Your task to perform on an android device: Show the shopping cart on amazon.com. Add logitech g pro to the cart on amazon.com, then select checkout. Image 0: 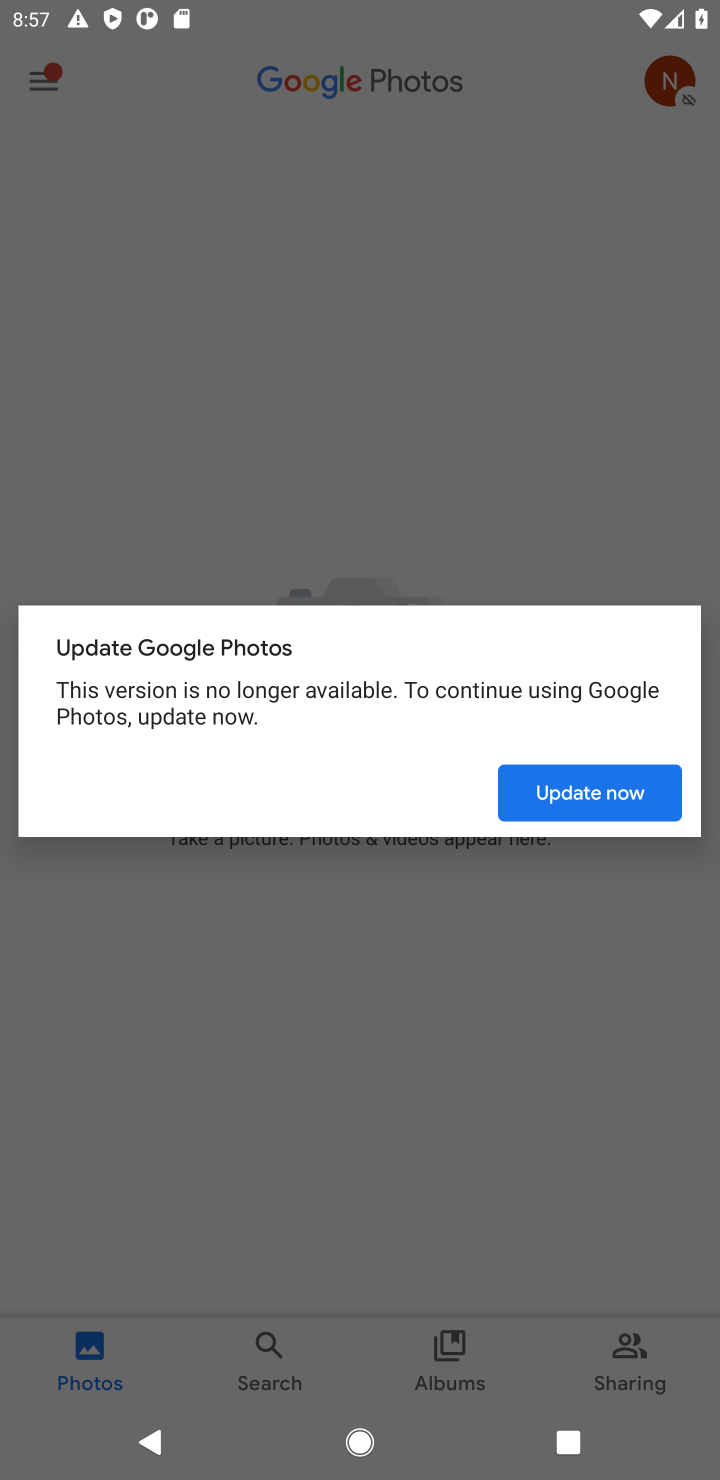
Step 0: press home button
Your task to perform on an android device: Show the shopping cart on amazon.com. Add logitech g pro to the cart on amazon.com, then select checkout. Image 1: 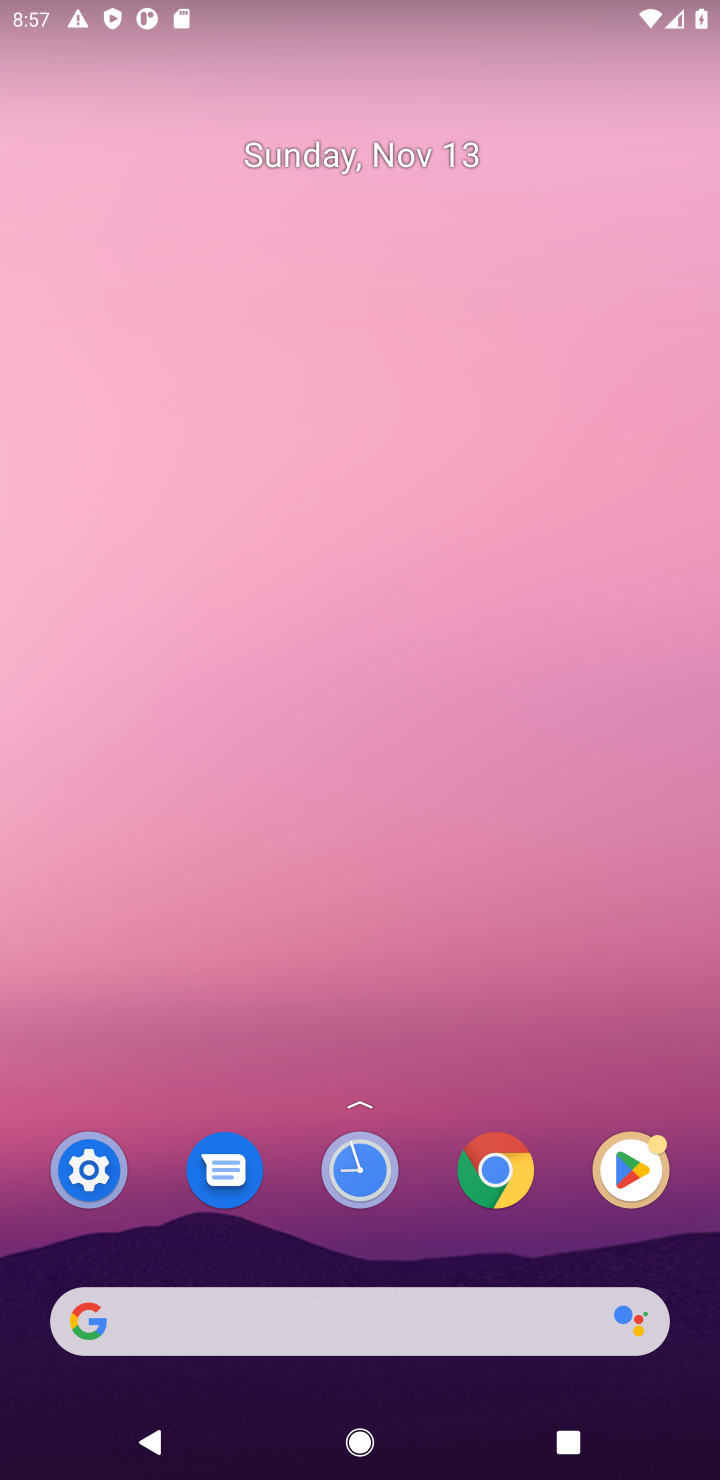
Step 1: click (391, 1360)
Your task to perform on an android device: Show the shopping cart on amazon.com. Add logitech g pro to the cart on amazon.com, then select checkout. Image 2: 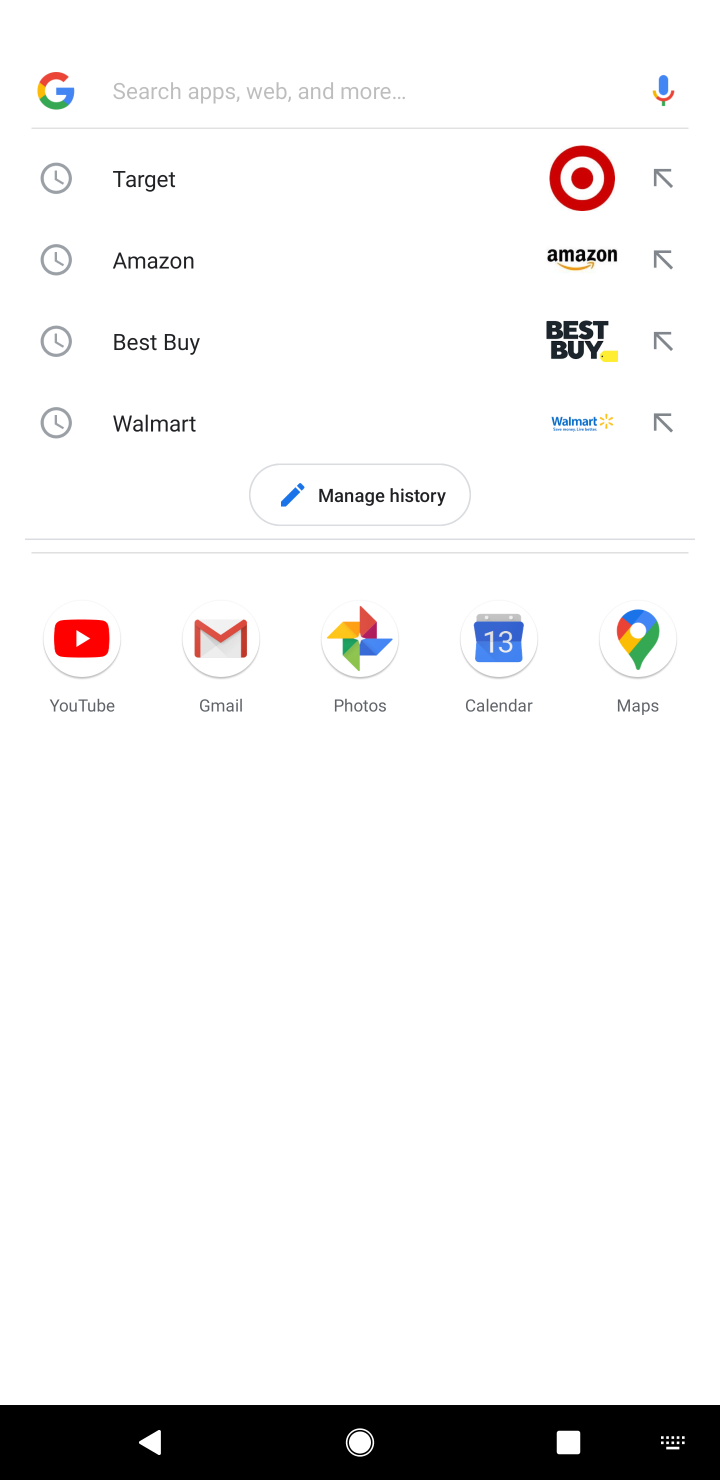
Step 2: type "amazon.com"
Your task to perform on an android device: Show the shopping cart on amazon.com. Add logitech g pro to the cart on amazon.com, then select checkout. Image 3: 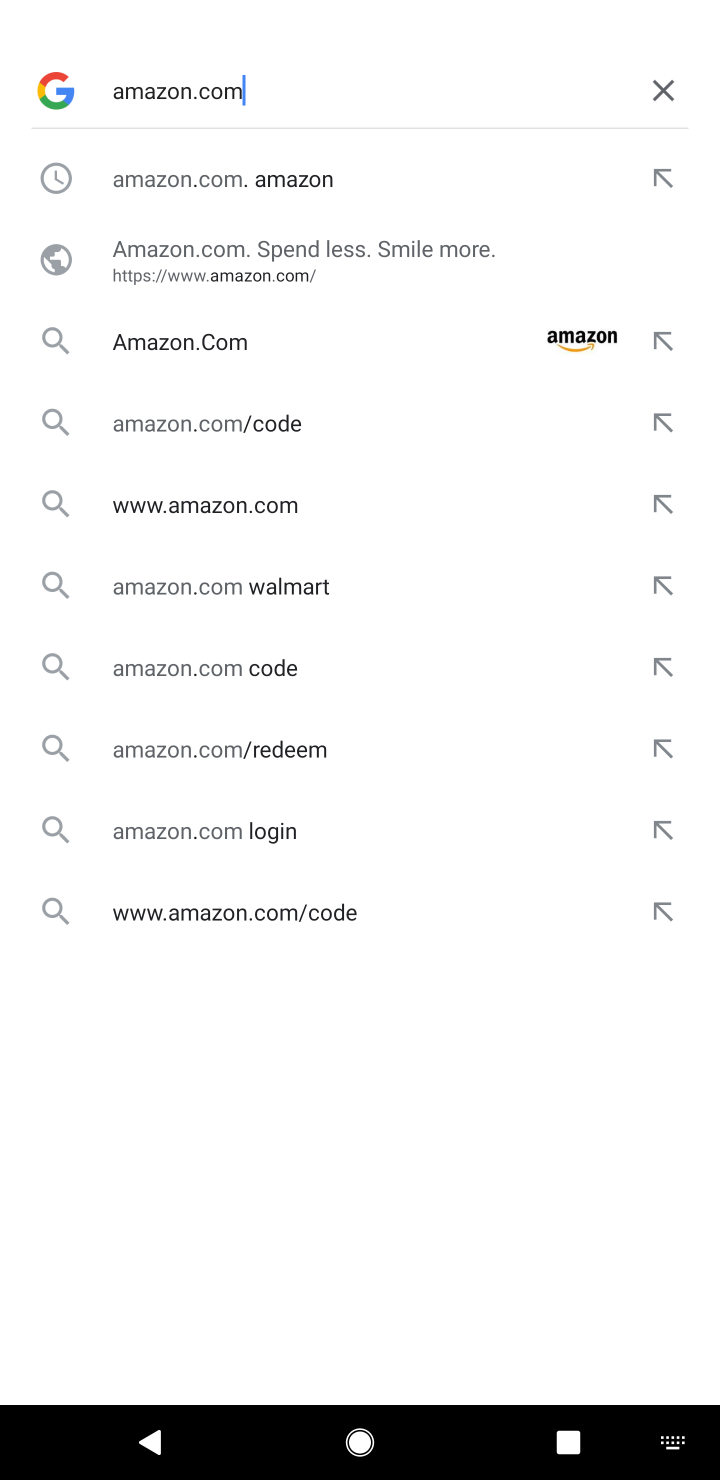
Step 3: click (247, 342)
Your task to perform on an android device: Show the shopping cart on amazon.com. Add logitech g pro to the cart on amazon.com, then select checkout. Image 4: 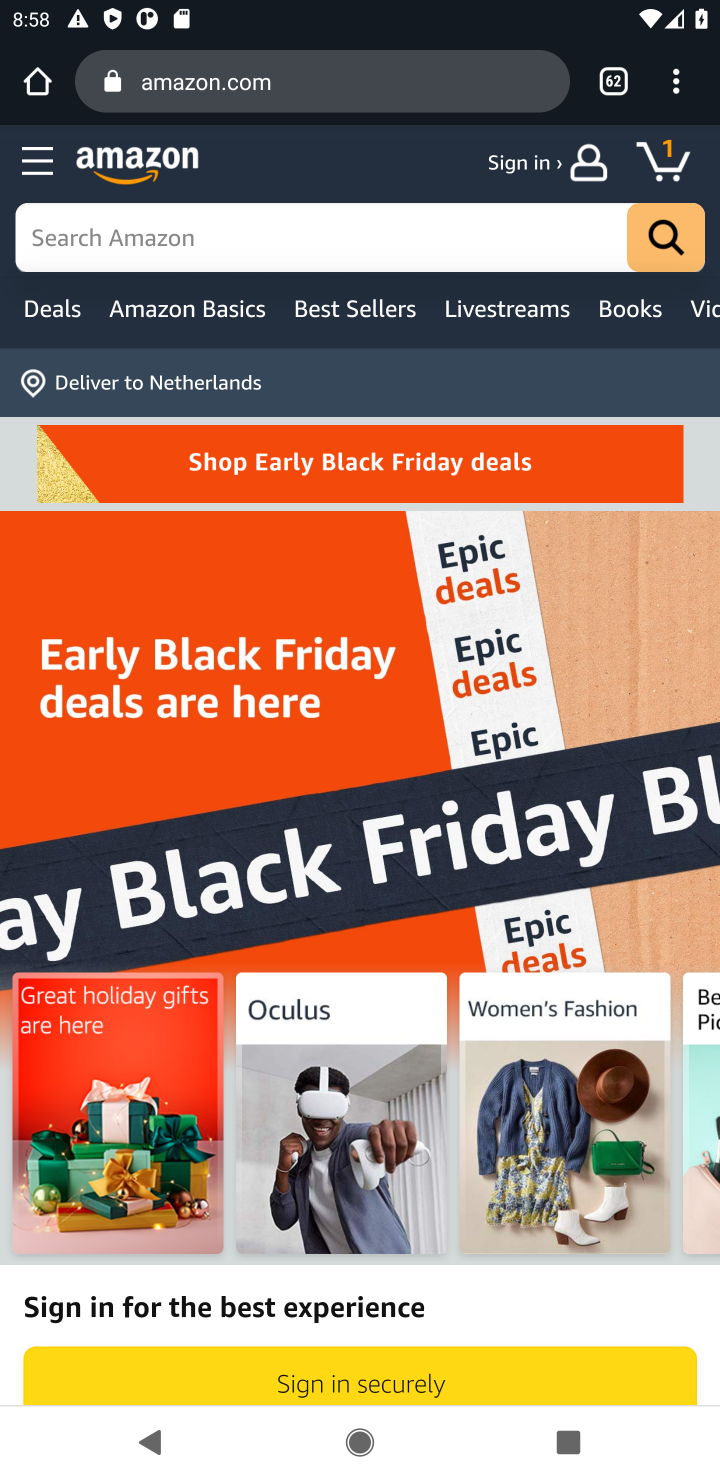
Step 4: click (416, 209)
Your task to perform on an android device: Show the shopping cart on amazon.com. Add logitech g pro to the cart on amazon.com, then select checkout. Image 5: 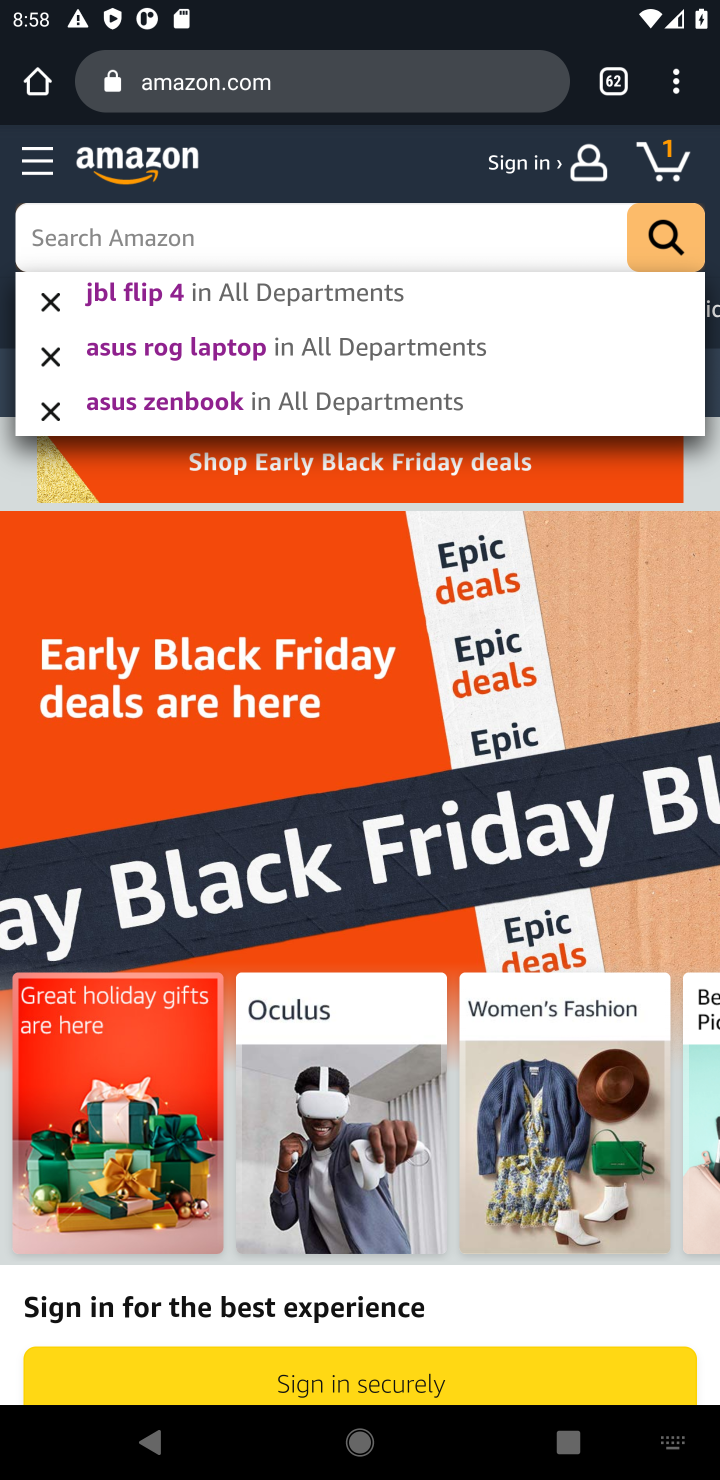
Step 5: type "logitech g pro"
Your task to perform on an android device: Show the shopping cart on amazon.com. Add logitech g pro to the cart on amazon.com, then select checkout. Image 6: 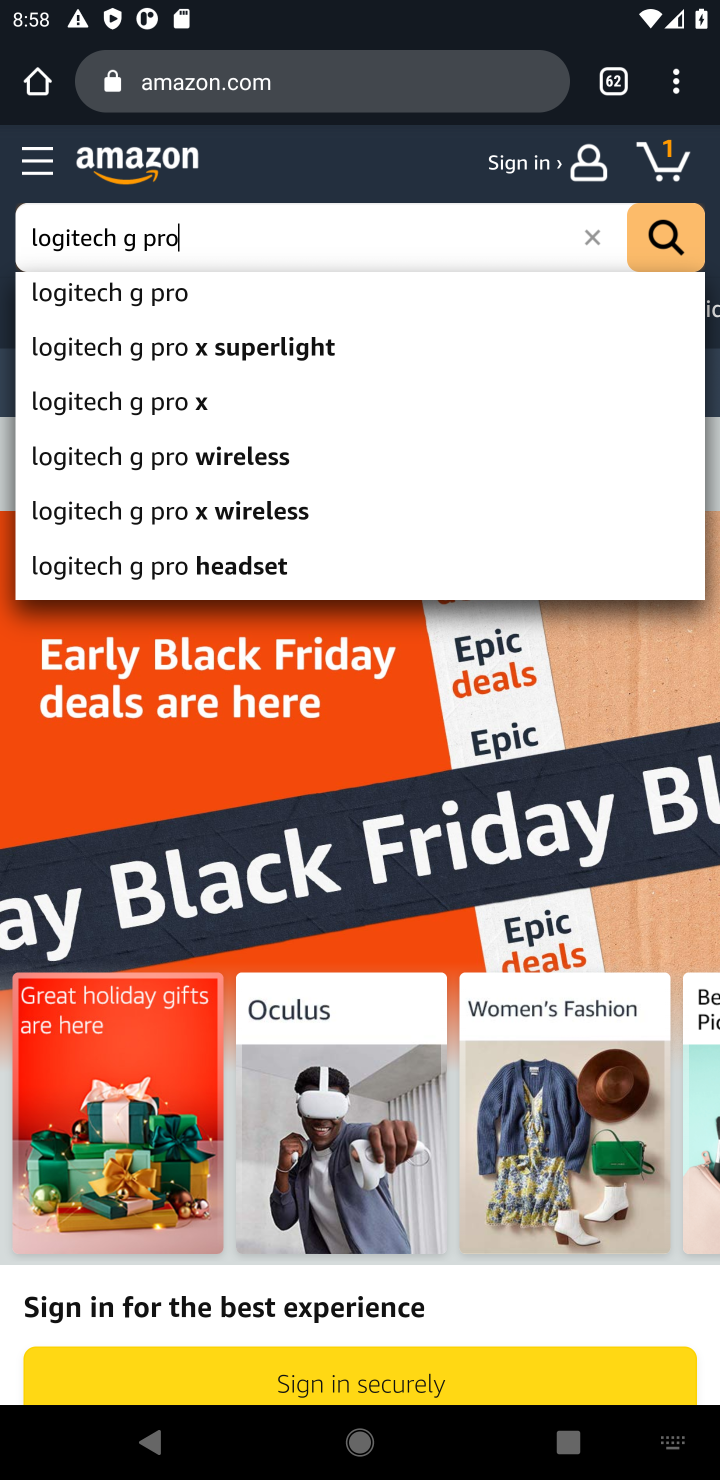
Step 6: click (192, 312)
Your task to perform on an android device: Show the shopping cart on amazon.com. Add logitech g pro to the cart on amazon.com, then select checkout. Image 7: 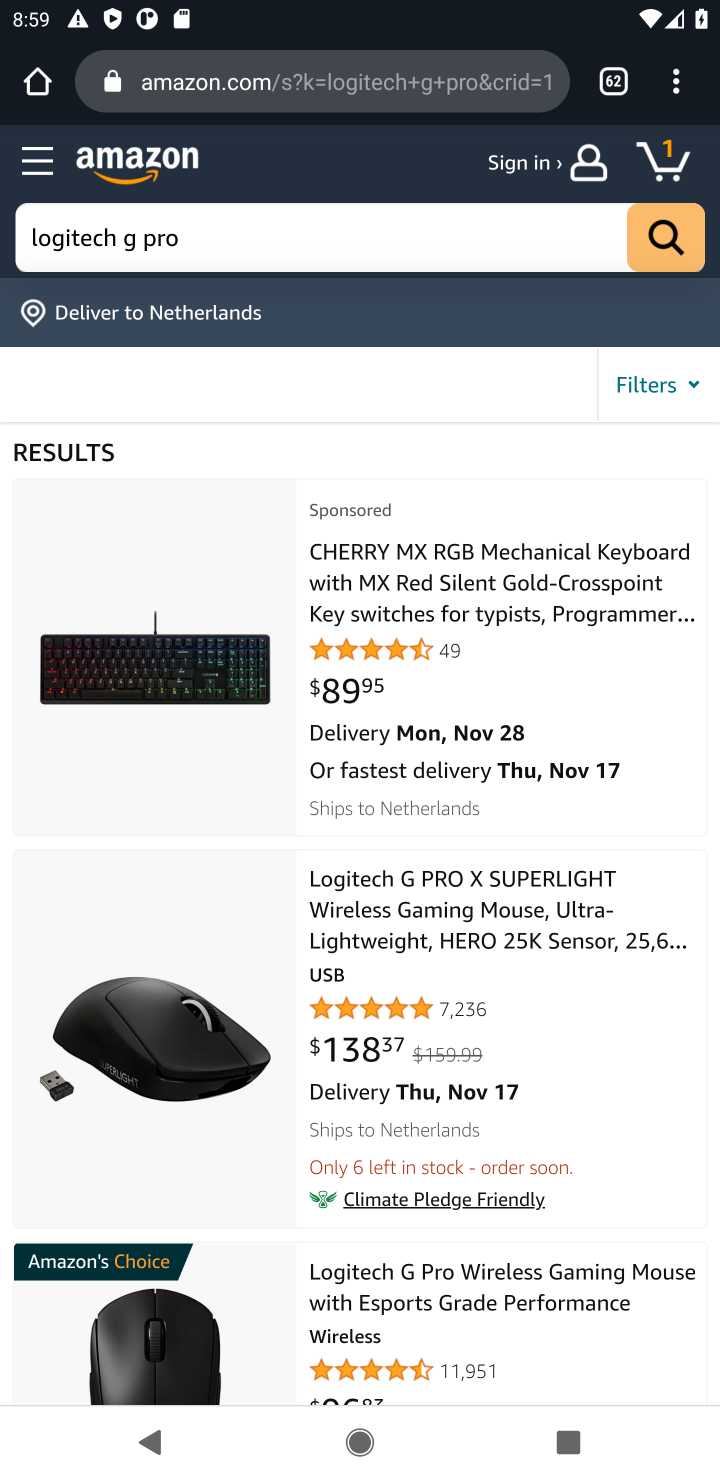
Step 7: click (385, 599)
Your task to perform on an android device: Show the shopping cart on amazon.com. Add logitech g pro to the cart on amazon.com, then select checkout. Image 8: 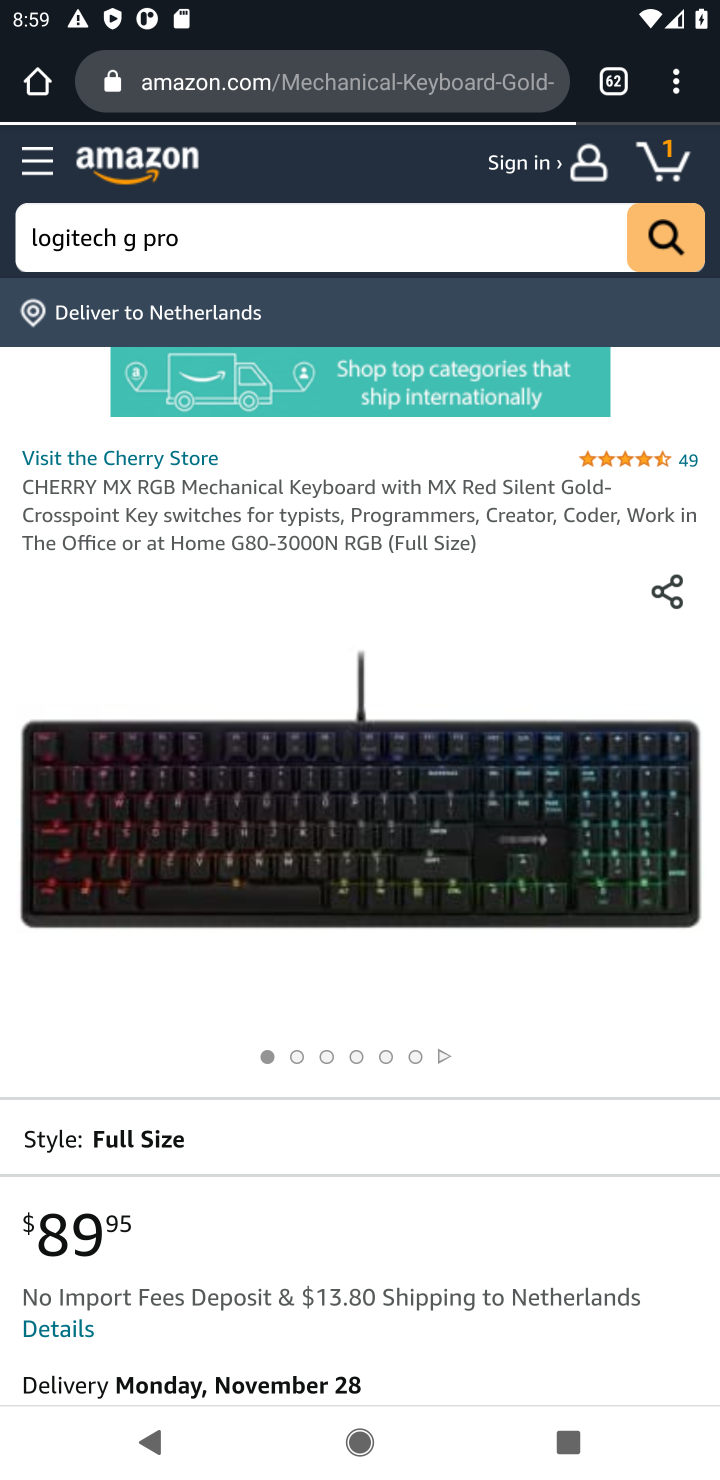
Step 8: task complete